Your task to perform on an android device: Go to privacy settings Image 0: 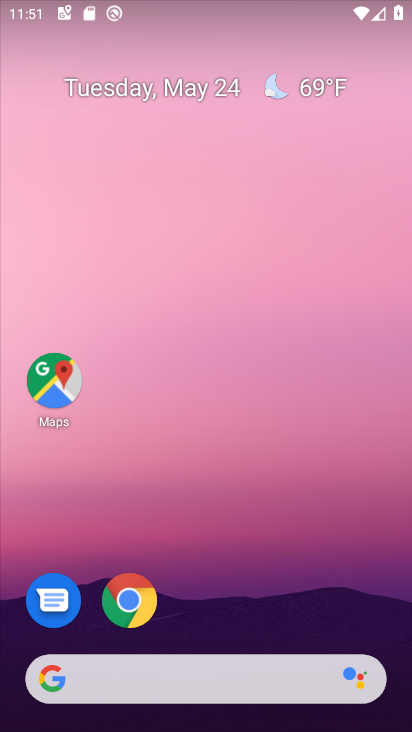
Step 0: drag from (390, 630) to (381, 207)
Your task to perform on an android device: Go to privacy settings Image 1: 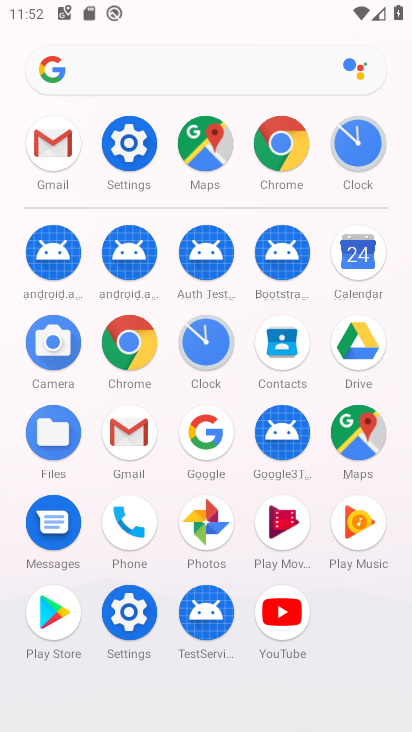
Step 1: click (125, 629)
Your task to perform on an android device: Go to privacy settings Image 2: 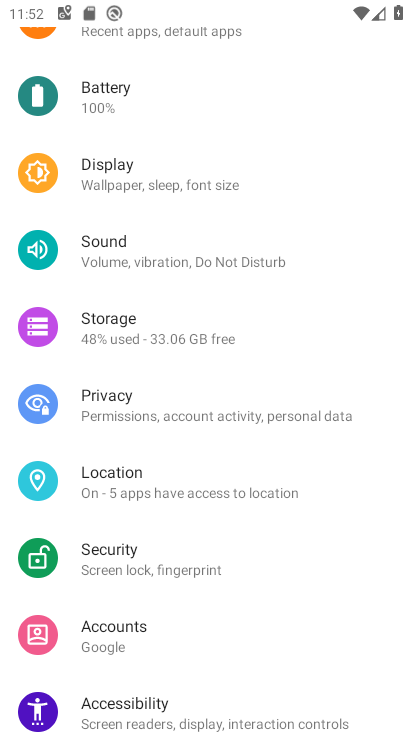
Step 2: drag from (340, 659) to (339, 550)
Your task to perform on an android device: Go to privacy settings Image 3: 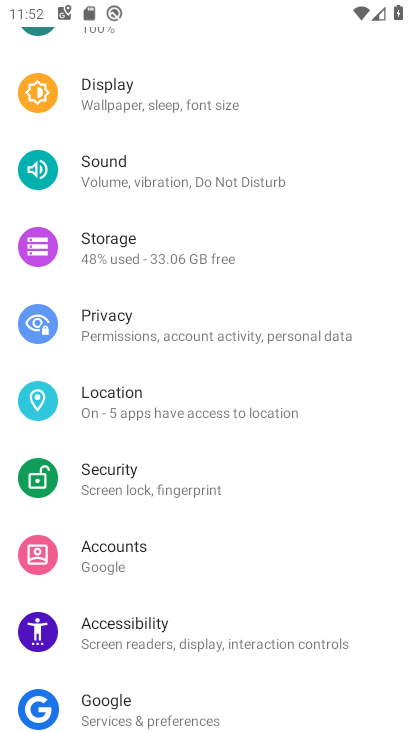
Step 3: drag from (373, 682) to (382, 542)
Your task to perform on an android device: Go to privacy settings Image 4: 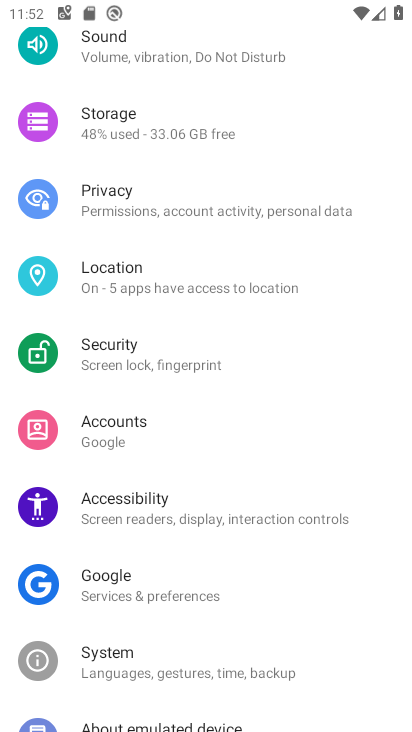
Step 4: drag from (377, 663) to (374, 535)
Your task to perform on an android device: Go to privacy settings Image 5: 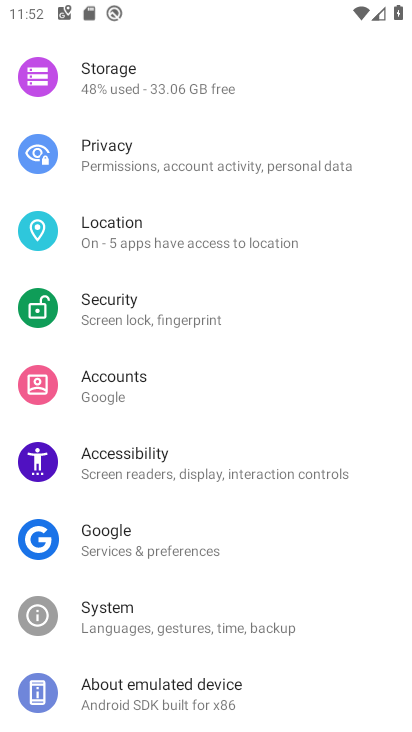
Step 5: drag from (349, 667) to (358, 531)
Your task to perform on an android device: Go to privacy settings Image 6: 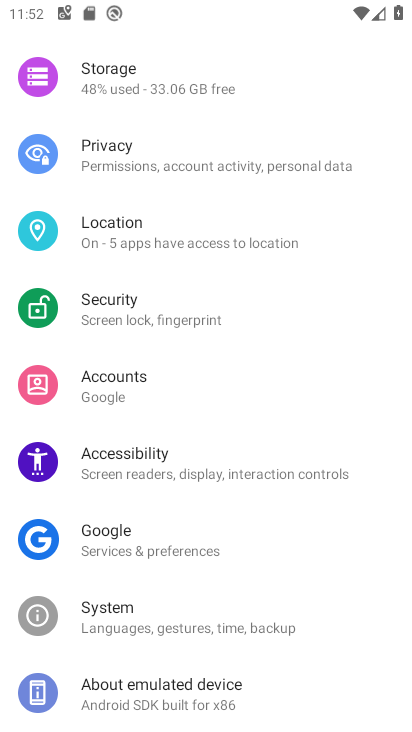
Step 6: drag from (327, 671) to (316, 537)
Your task to perform on an android device: Go to privacy settings Image 7: 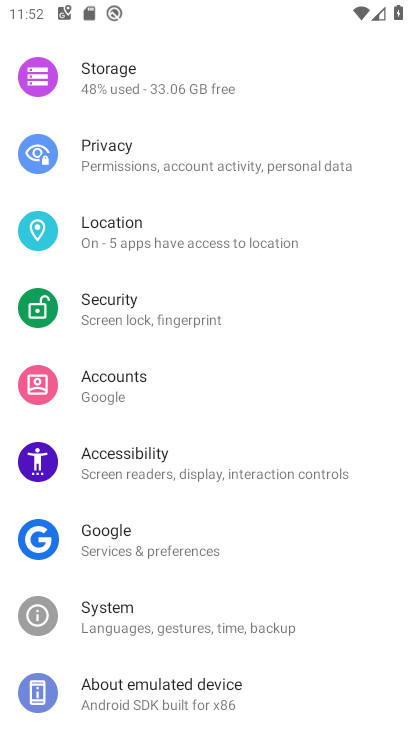
Step 7: drag from (338, 495) to (327, 582)
Your task to perform on an android device: Go to privacy settings Image 8: 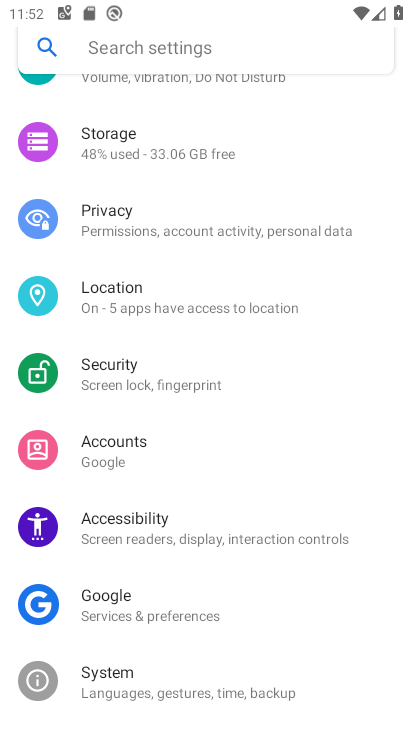
Step 8: drag from (334, 462) to (332, 553)
Your task to perform on an android device: Go to privacy settings Image 9: 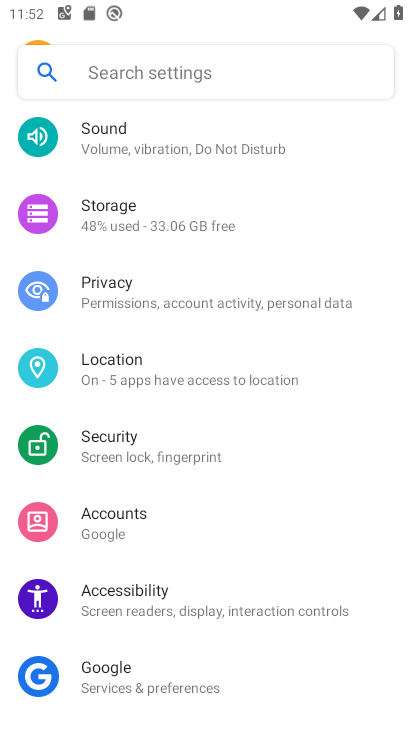
Step 9: drag from (340, 431) to (335, 522)
Your task to perform on an android device: Go to privacy settings Image 10: 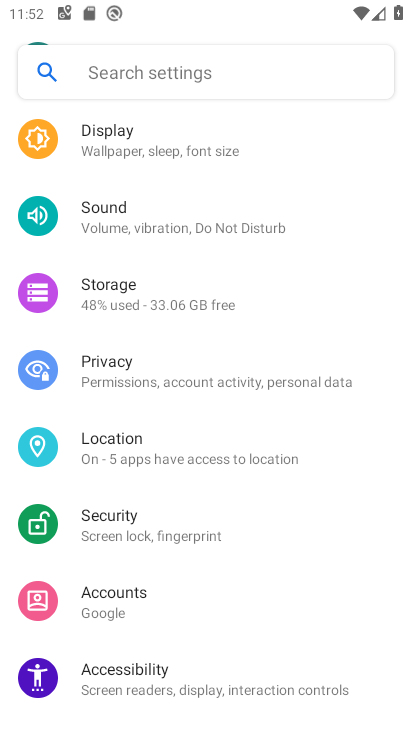
Step 10: drag from (335, 424) to (336, 511)
Your task to perform on an android device: Go to privacy settings Image 11: 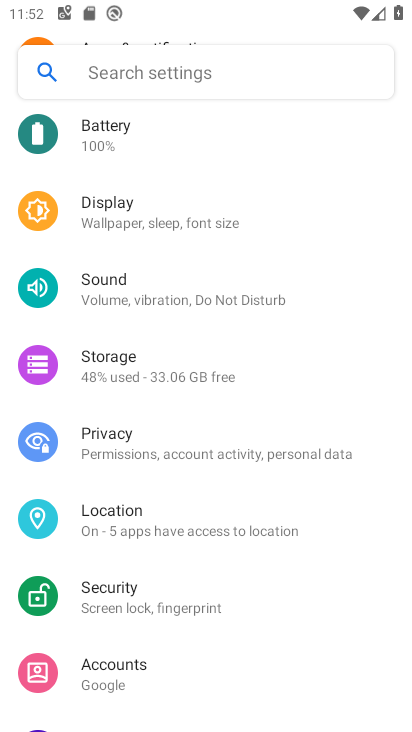
Step 11: drag from (343, 383) to (353, 657)
Your task to perform on an android device: Go to privacy settings Image 12: 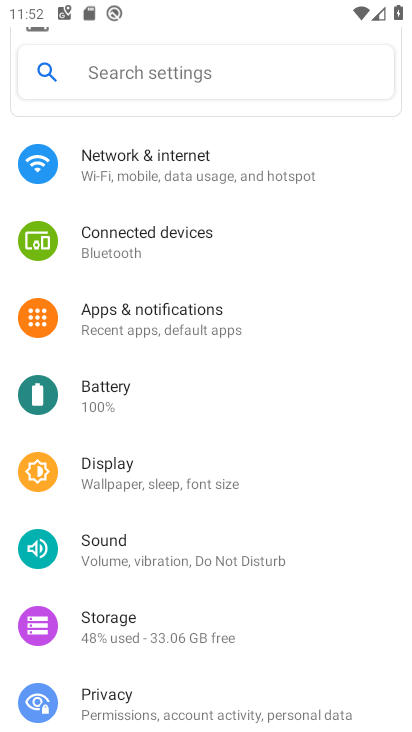
Step 12: click (133, 701)
Your task to perform on an android device: Go to privacy settings Image 13: 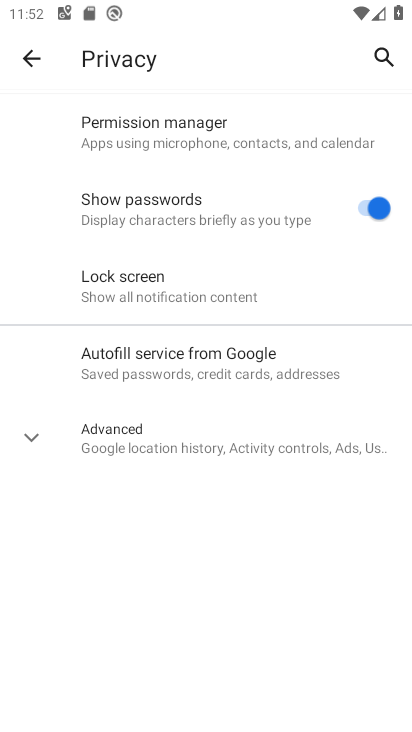
Step 13: task complete